Your task to perform on an android device: What is the recent news? Image 0: 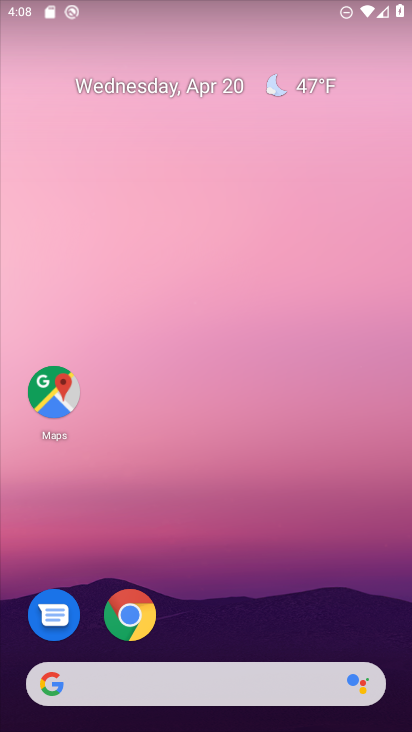
Step 0: drag from (227, 628) to (388, 27)
Your task to perform on an android device: What is the recent news? Image 1: 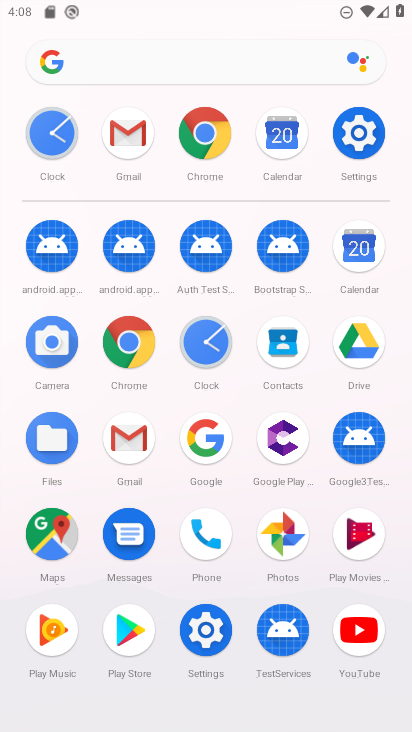
Step 1: click (212, 431)
Your task to perform on an android device: What is the recent news? Image 2: 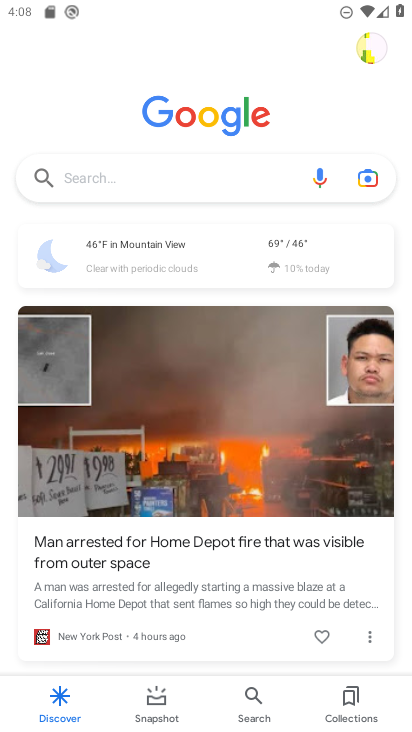
Step 2: click (92, 177)
Your task to perform on an android device: What is the recent news? Image 3: 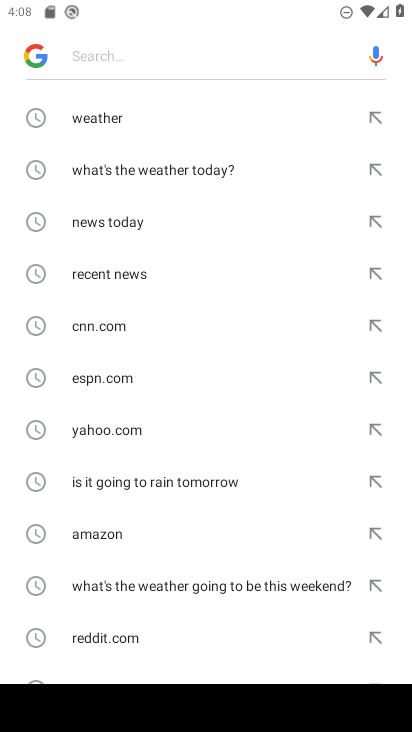
Step 3: click (122, 278)
Your task to perform on an android device: What is the recent news? Image 4: 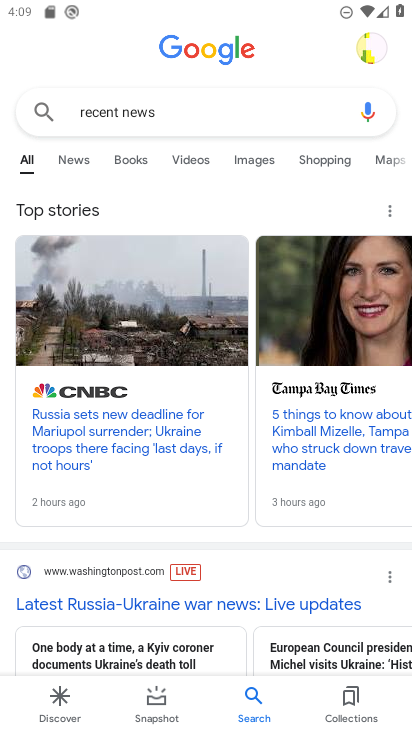
Step 4: task complete